Your task to perform on an android device: change notifications settings Image 0: 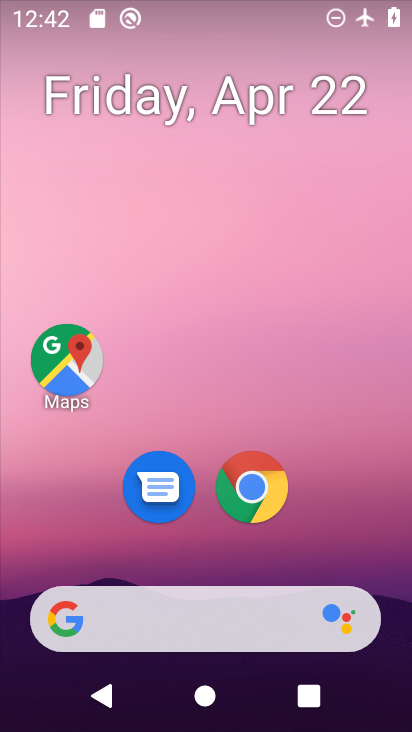
Step 0: drag from (335, 261) to (331, 181)
Your task to perform on an android device: change notifications settings Image 1: 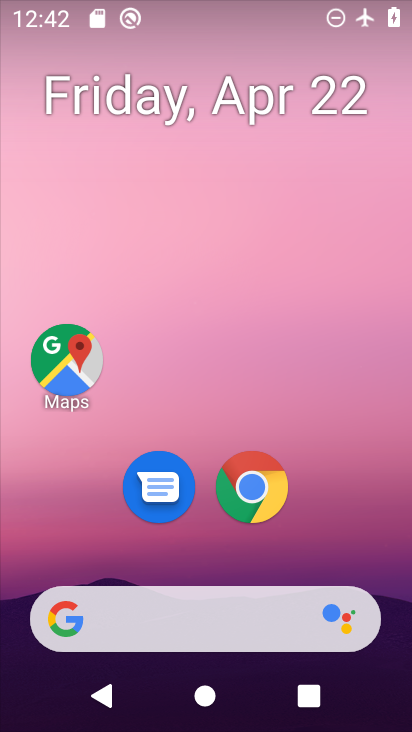
Step 1: drag from (333, 548) to (317, 156)
Your task to perform on an android device: change notifications settings Image 2: 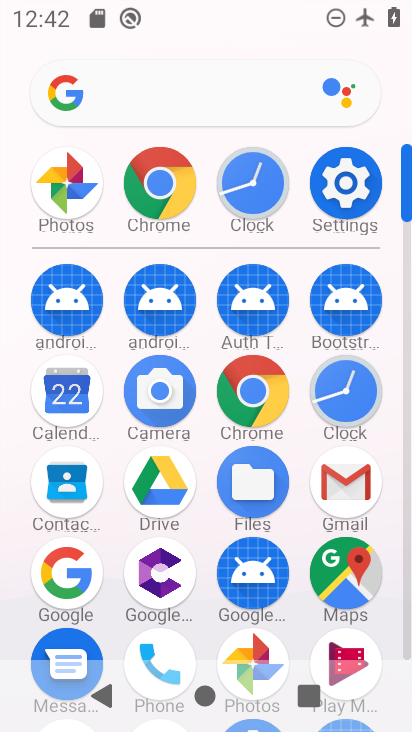
Step 2: click (340, 183)
Your task to perform on an android device: change notifications settings Image 3: 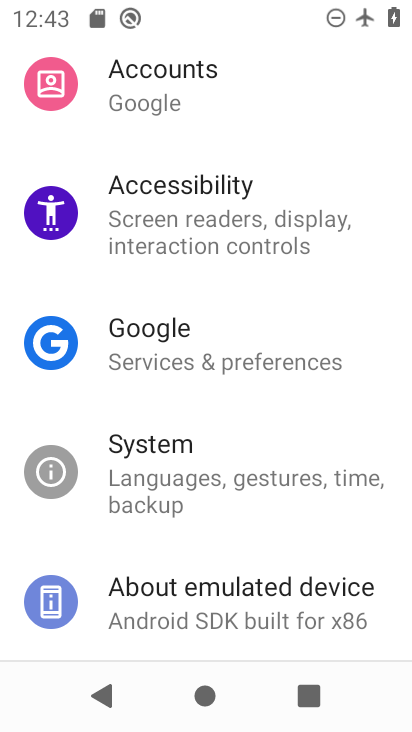
Step 3: drag from (245, 145) to (150, 683)
Your task to perform on an android device: change notifications settings Image 4: 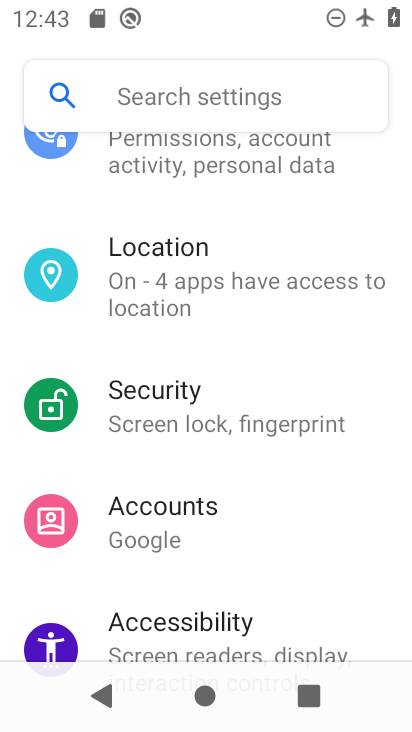
Step 4: drag from (183, 198) to (109, 714)
Your task to perform on an android device: change notifications settings Image 5: 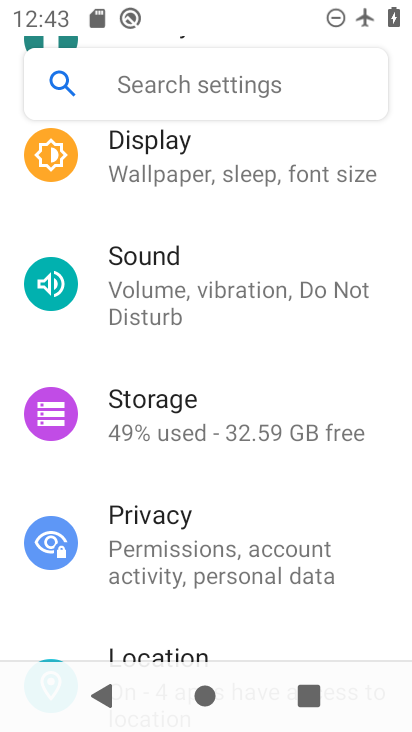
Step 5: drag from (272, 187) to (238, 629)
Your task to perform on an android device: change notifications settings Image 6: 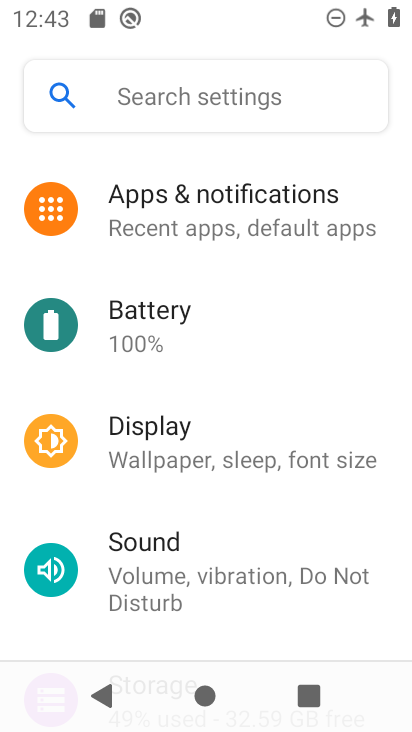
Step 6: click (222, 205)
Your task to perform on an android device: change notifications settings Image 7: 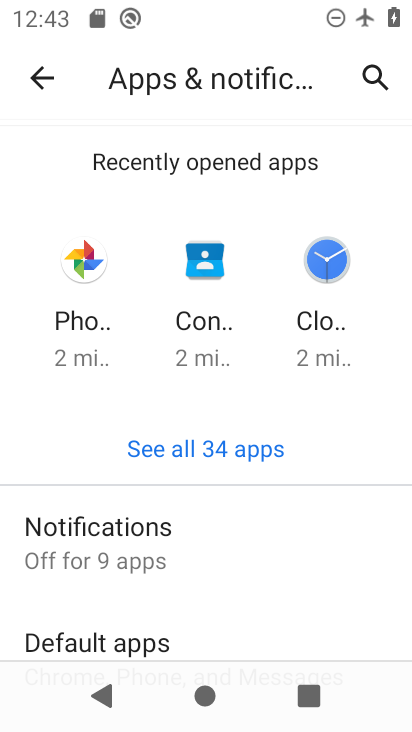
Step 7: click (151, 536)
Your task to perform on an android device: change notifications settings Image 8: 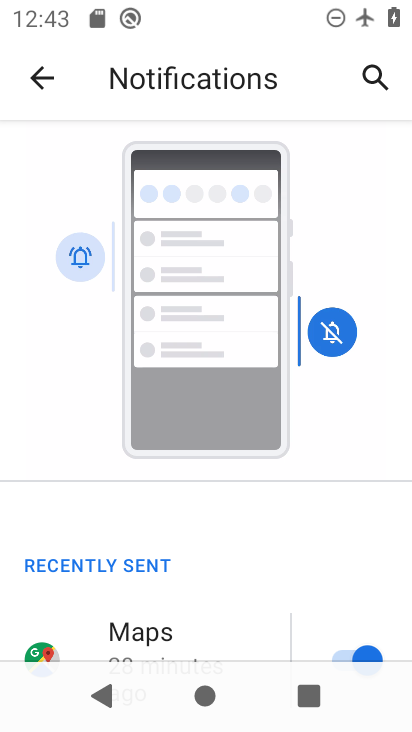
Step 8: drag from (172, 559) to (258, 82)
Your task to perform on an android device: change notifications settings Image 9: 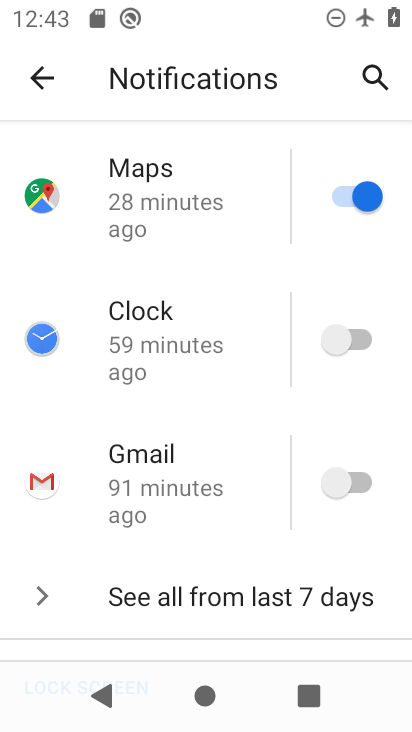
Step 9: click (332, 190)
Your task to perform on an android device: change notifications settings Image 10: 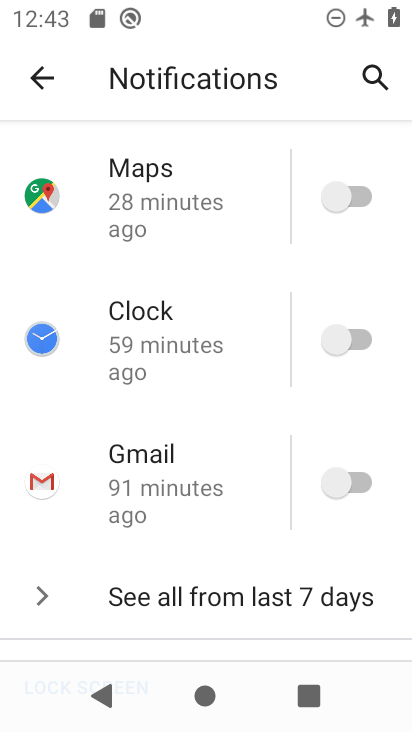
Step 10: click (240, 607)
Your task to perform on an android device: change notifications settings Image 11: 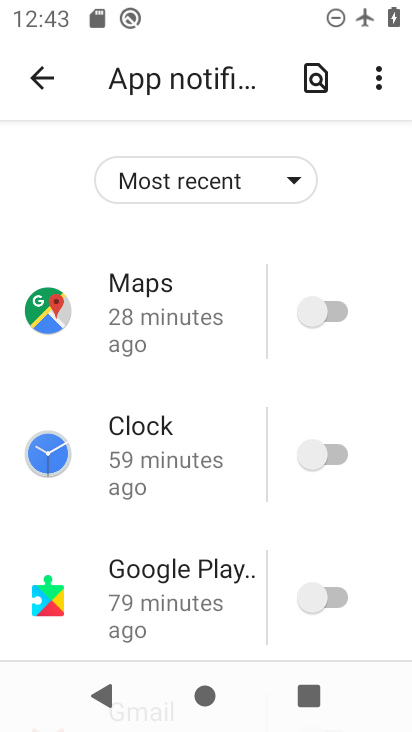
Step 11: drag from (171, 511) to (292, 133)
Your task to perform on an android device: change notifications settings Image 12: 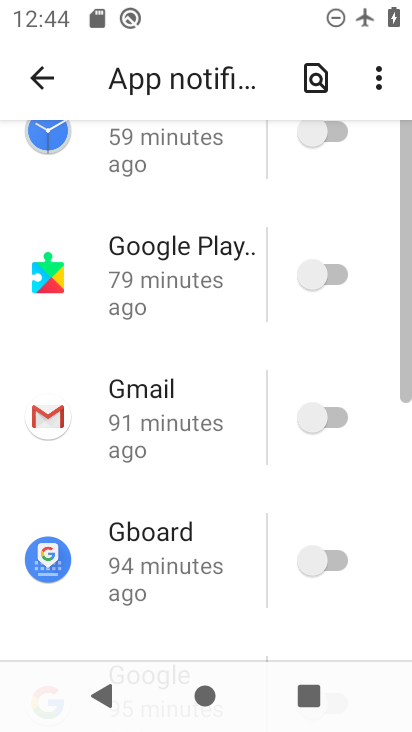
Step 12: drag from (221, 479) to (217, 635)
Your task to perform on an android device: change notifications settings Image 13: 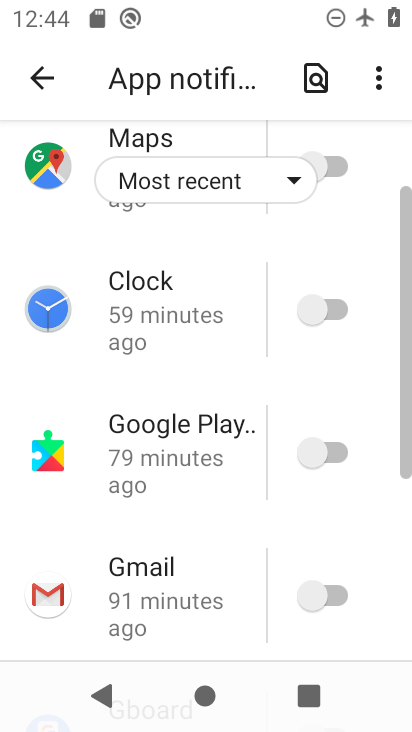
Step 13: drag from (252, 348) to (207, 656)
Your task to perform on an android device: change notifications settings Image 14: 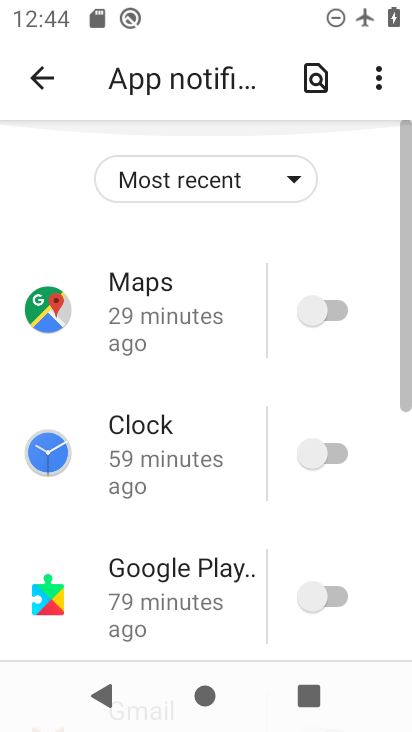
Step 14: click (310, 450)
Your task to perform on an android device: change notifications settings Image 15: 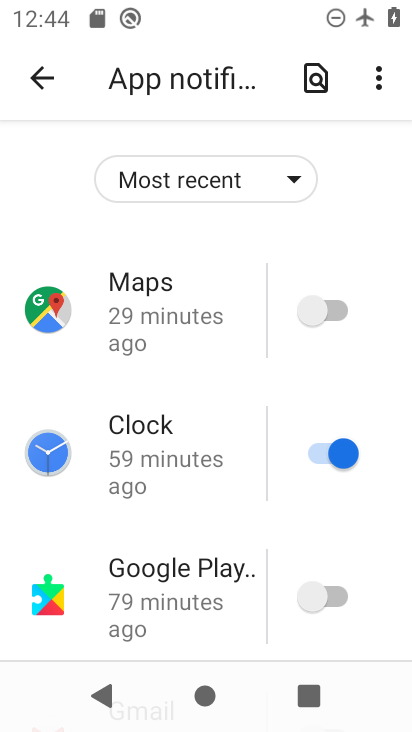
Step 15: drag from (216, 570) to (231, 290)
Your task to perform on an android device: change notifications settings Image 16: 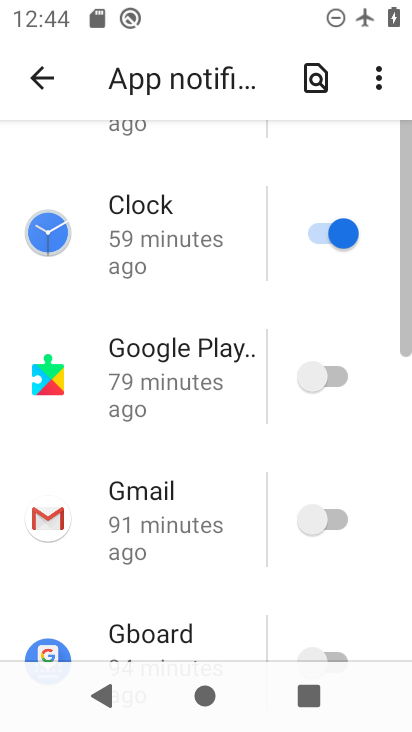
Step 16: click (312, 375)
Your task to perform on an android device: change notifications settings Image 17: 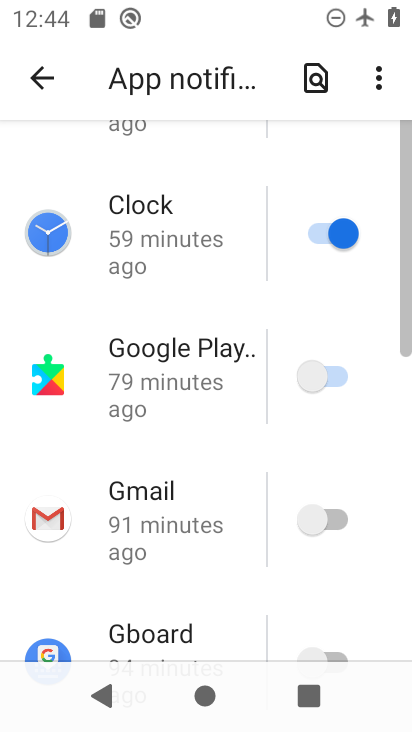
Step 17: click (317, 515)
Your task to perform on an android device: change notifications settings Image 18: 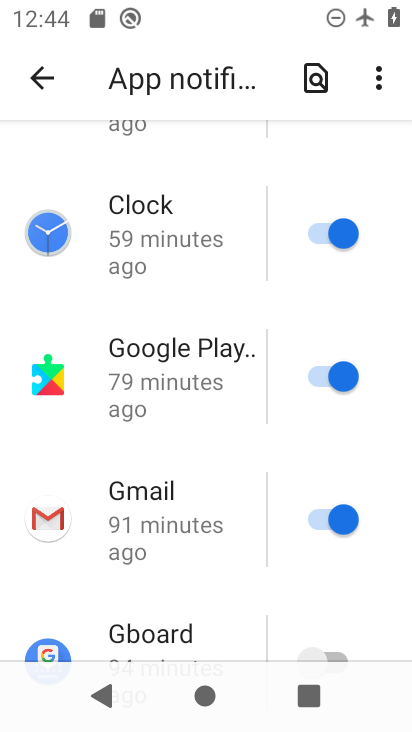
Step 18: drag from (88, 566) to (150, 176)
Your task to perform on an android device: change notifications settings Image 19: 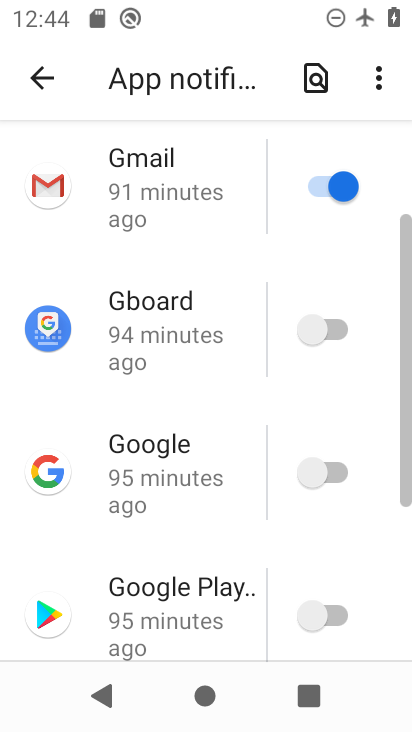
Step 19: click (326, 330)
Your task to perform on an android device: change notifications settings Image 20: 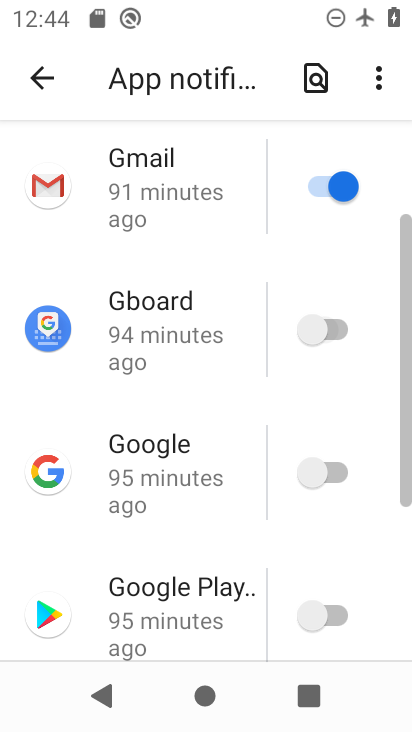
Step 20: click (321, 463)
Your task to perform on an android device: change notifications settings Image 21: 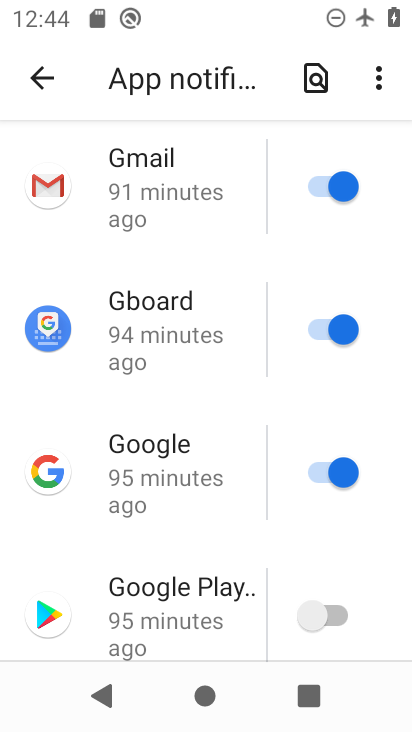
Step 21: drag from (204, 479) to (277, 173)
Your task to perform on an android device: change notifications settings Image 22: 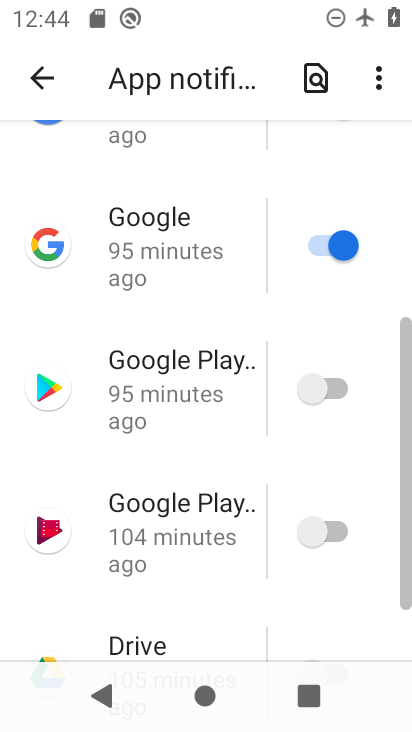
Step 22: click (330, 383)
Your task to perform on an android device: change notifications settings Image 23: 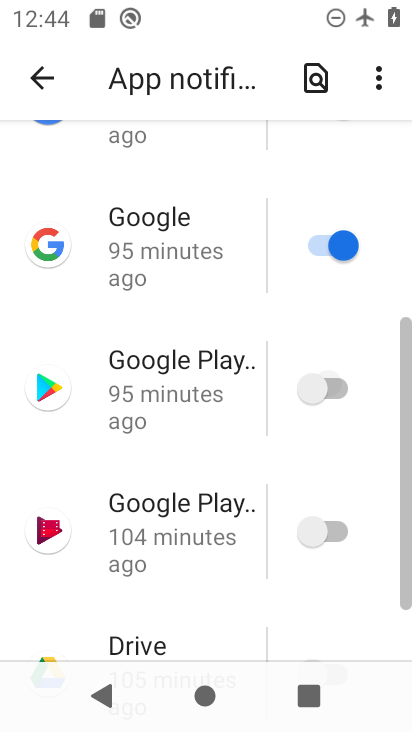
Step 23: click (303, 532)
Your task to perform on an android device: change notifications settings Image 24: 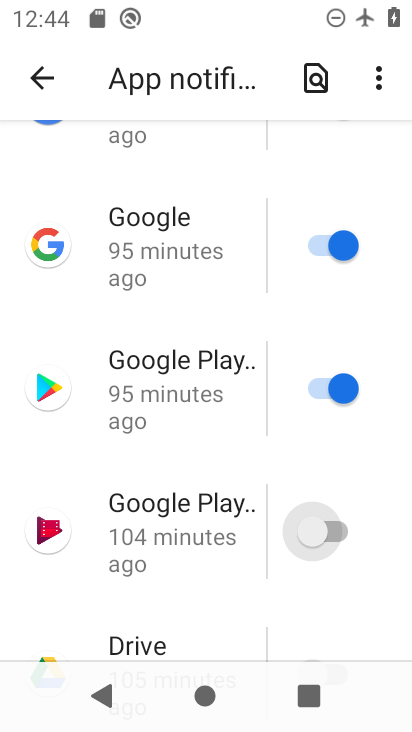
Step 24: drag from (91, 575) to (214, 181)
Your task to perform on an android device: change notifications settings Image 25: 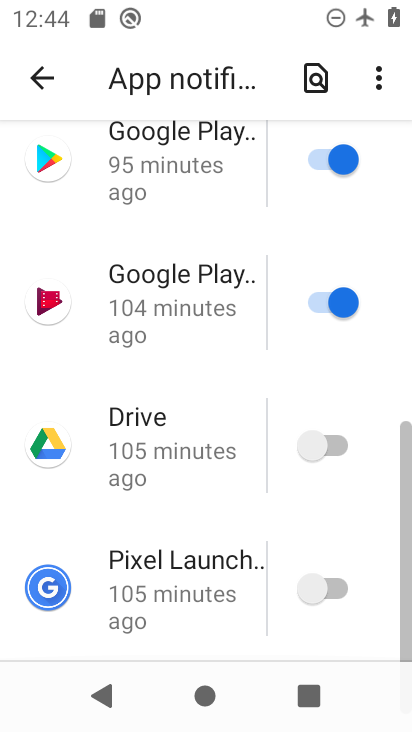
Step 25: click (340, 441)
Your task to perform on an android device: change notifications settings Image 26: 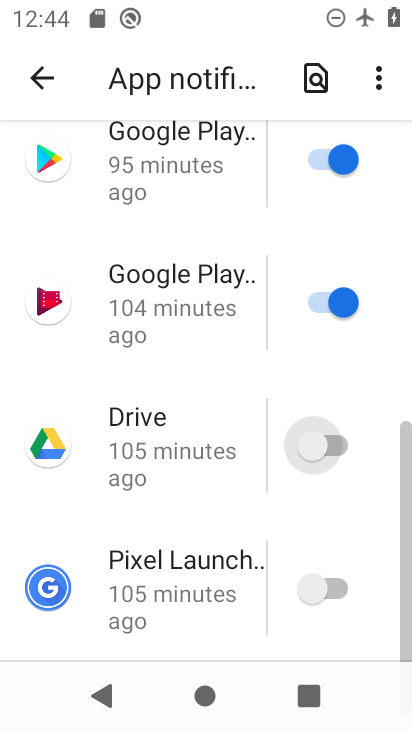
Step 26: click (321, 598)
Your task to perform on an android device: change notifications settings Image 27: 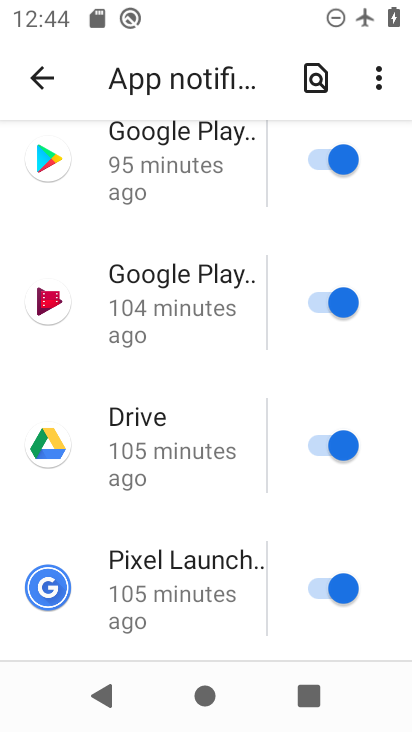
Step 27: task complete